Your task to perform on an android device: Open the web browser Image 0: 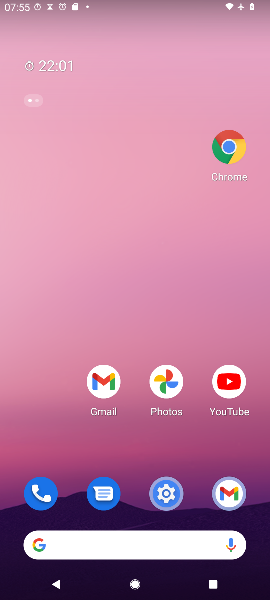
Step 0: click (36, 538)
Your task to perform on an android device: Open the web browser Image 1: 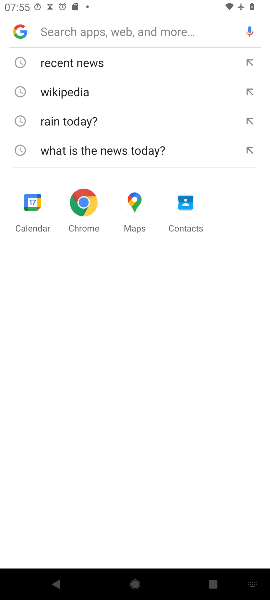
Step 1: task complete